Your task to perform on an android device: toggle translation in the chrome app Image 0: 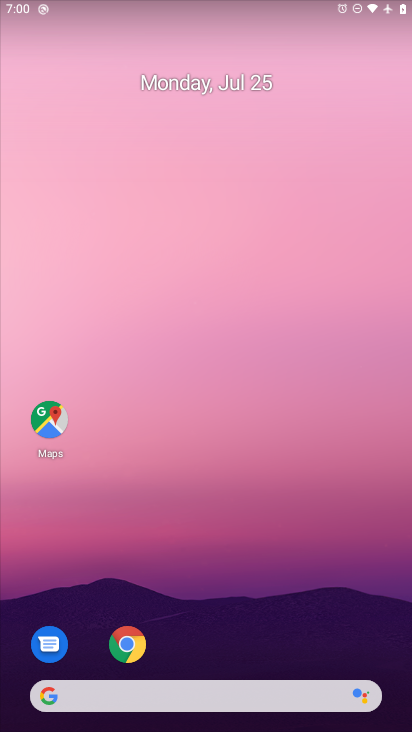
Step 0: press home button
Your task to perform on an android device: toggle translation in the chrome app Image 1: 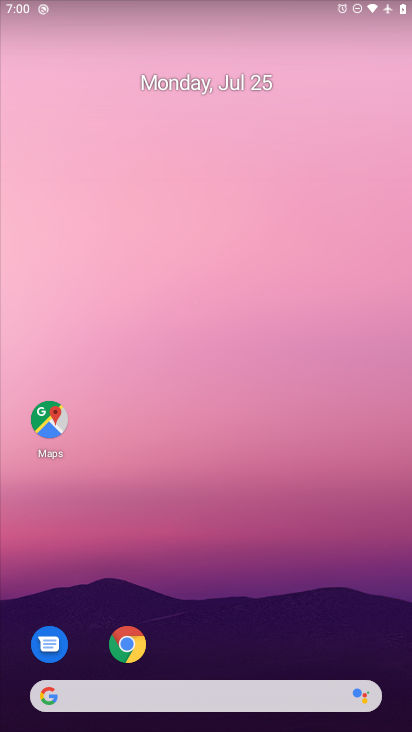
Step 1: drag from (228, 634) to (269, 192)
Your task to perform on an android device: toggle translation in the chrome app Image 2: 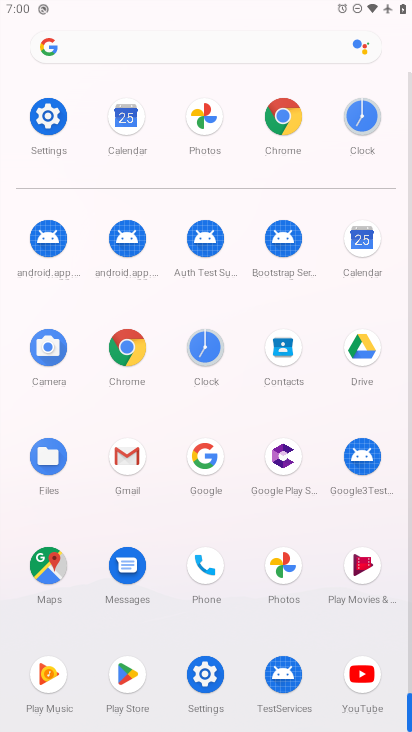
Step 2: click (281, 116)
Your task to perform on an android device: toggle translation in the chrome app Image 3: 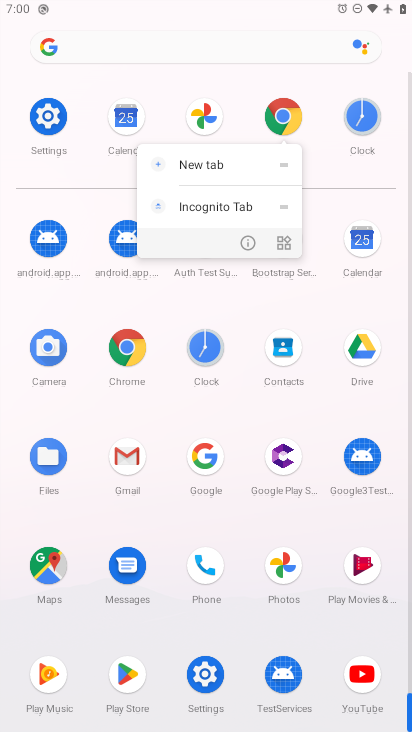
Step 3: click (283, 127)
Your task to perform on an android device: toggle translation in the chrome app Image 4: 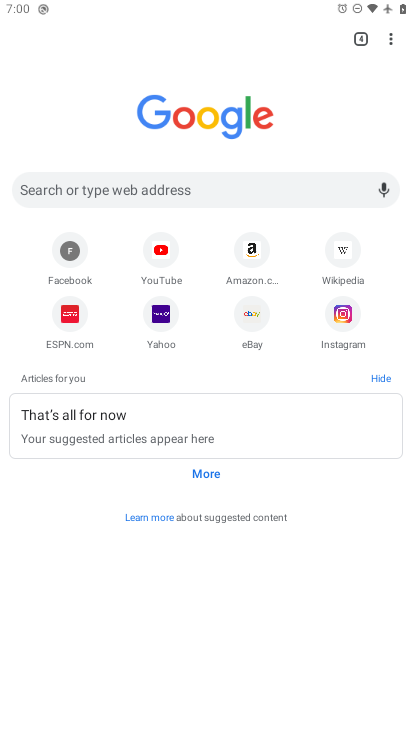
Step 4: drag from (396, 37) to (266, 318)
Your task to perform on an android device: toggle translation in the chrome app Image 5: 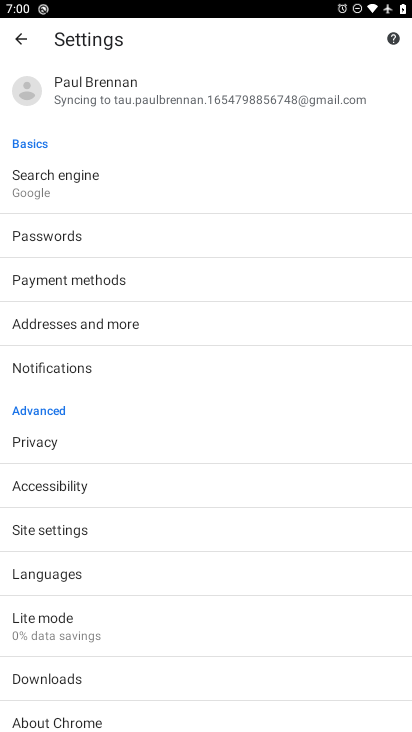
Step 5: click (36, 581)
Your task to perform on an android device: toggle translation in the chrome app Image 6: 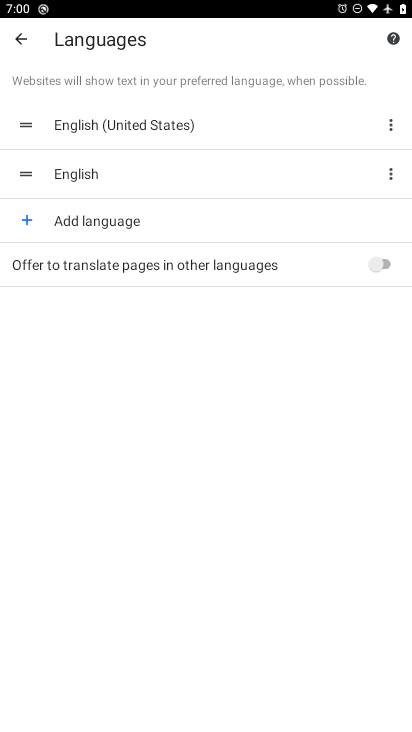
Step 6: click (372, 260)
Your task to perform on an android device: toggle translation in the chrome app Image 7: 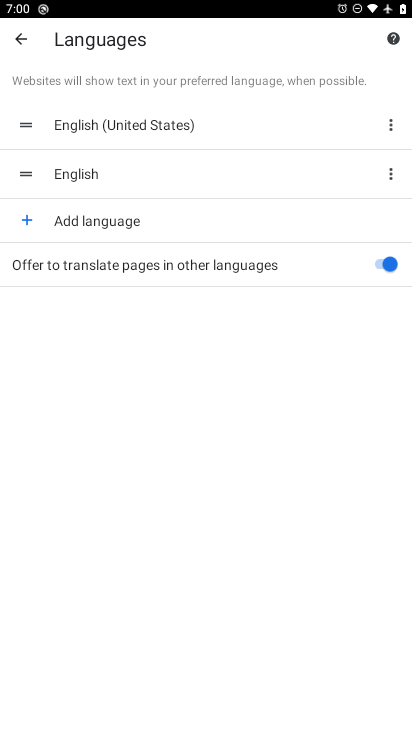
Step 7: task complete